Your task to perform on an android device: turn off priority inbox in the gmail app Image 0: 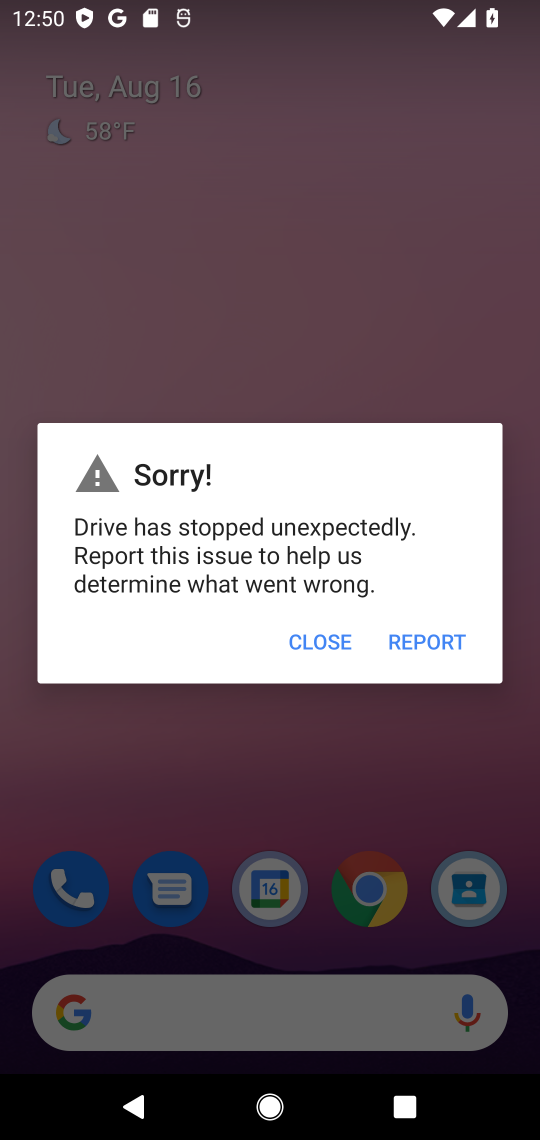
Step 0: drag from (264, 935) to (376, 85)
Your task to perform on an android device: turn off priority inbox in the gmail app Image 1: 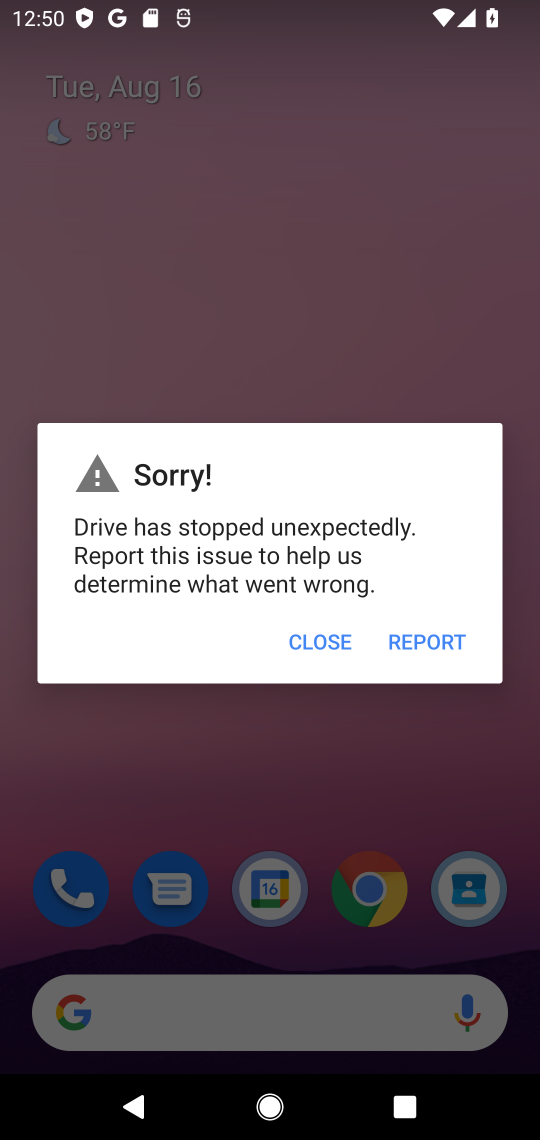
Step 1: click (311, 651)
Your task to perform on an android device: turn off priority inbox in the gmail app Image 2: 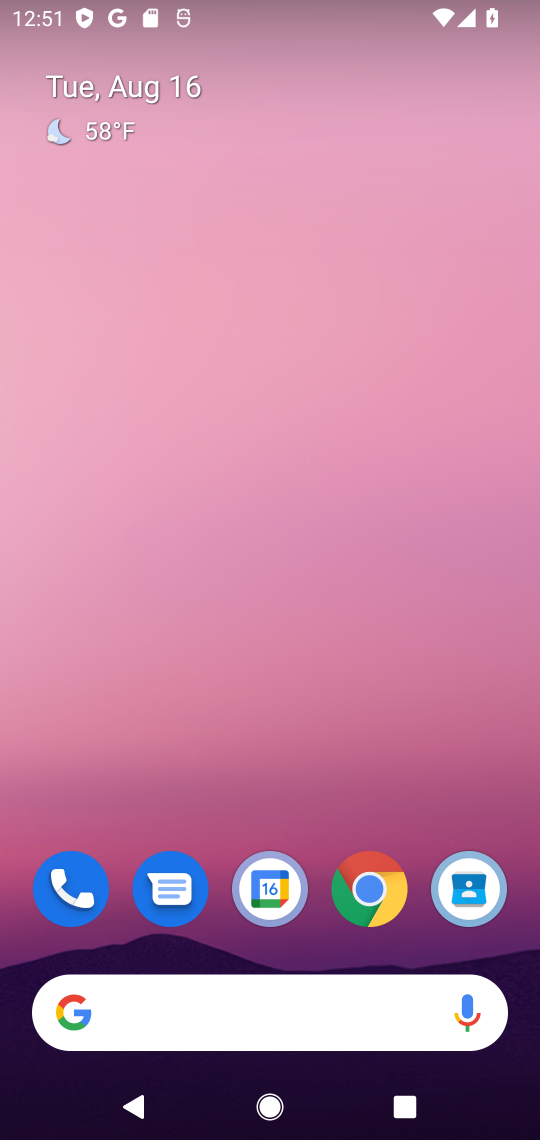
Step 2: drag from (271, 1030) to (376, 36)
Your task to perform on an android device: turn off priority inbox in the gmail app Image 3: 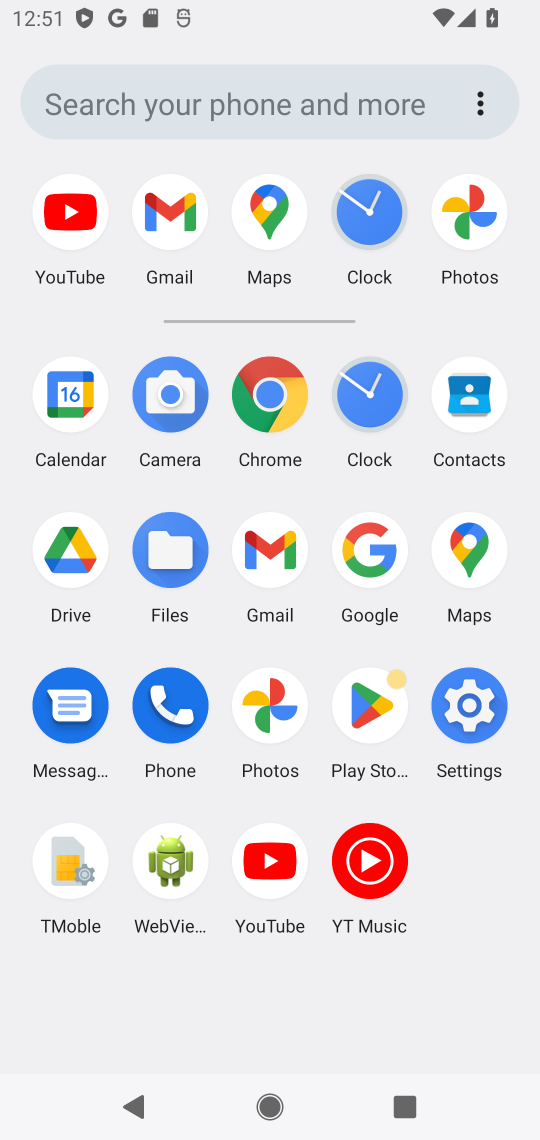
Step 3: click (248, 556)
Your task to perform on an android device: turn off priority inbox in the gmail app Image 4: 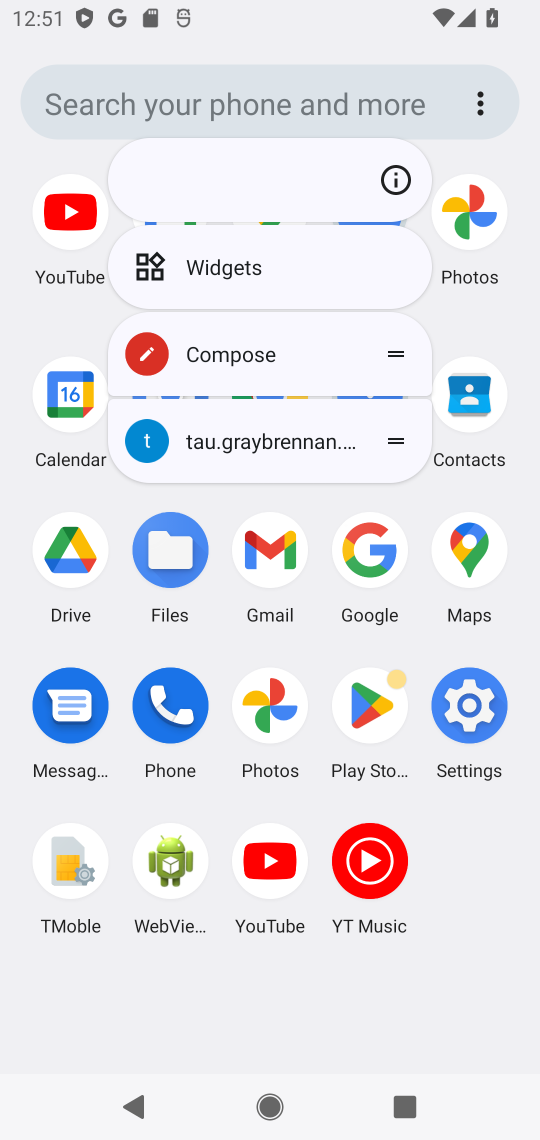
Step 4: click (270, 574)
Your task to perform on an android device: turn off priority inbox in the gmail app Image 5: 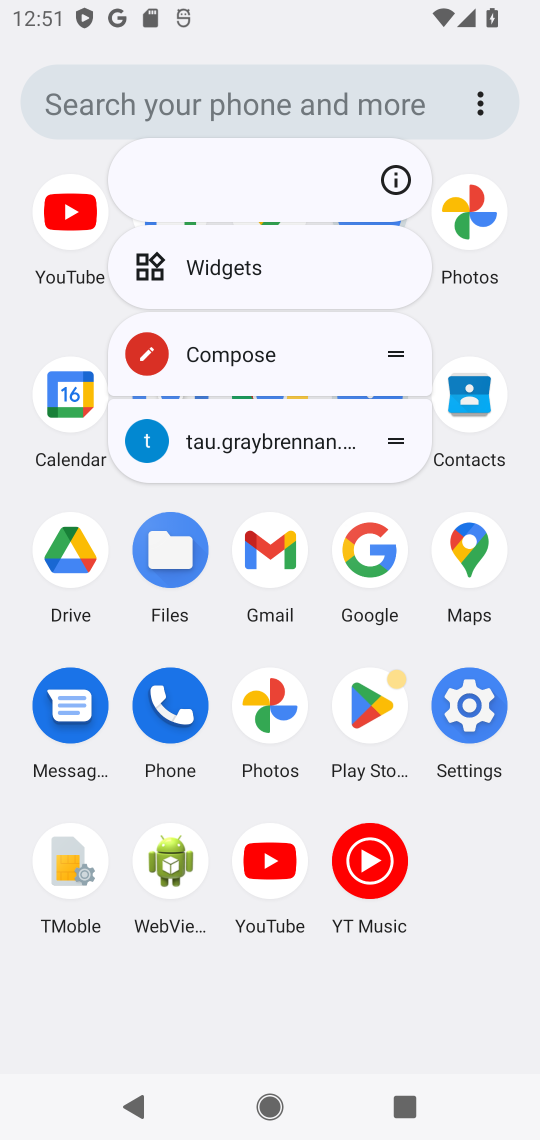
Step 5: click (264, 558)
Your task to perform on an android device: turn off priority inbox in the gmail app Image 6: 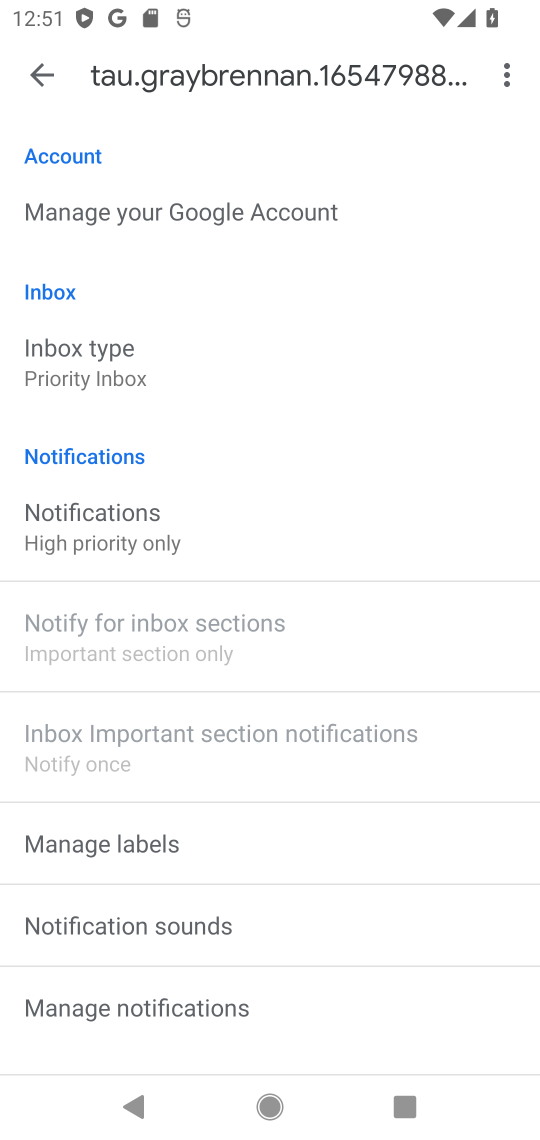
Step 6: click (69, 378)
Your task to perform on an android device: turn off priority inbox in the gmail app Image 7: 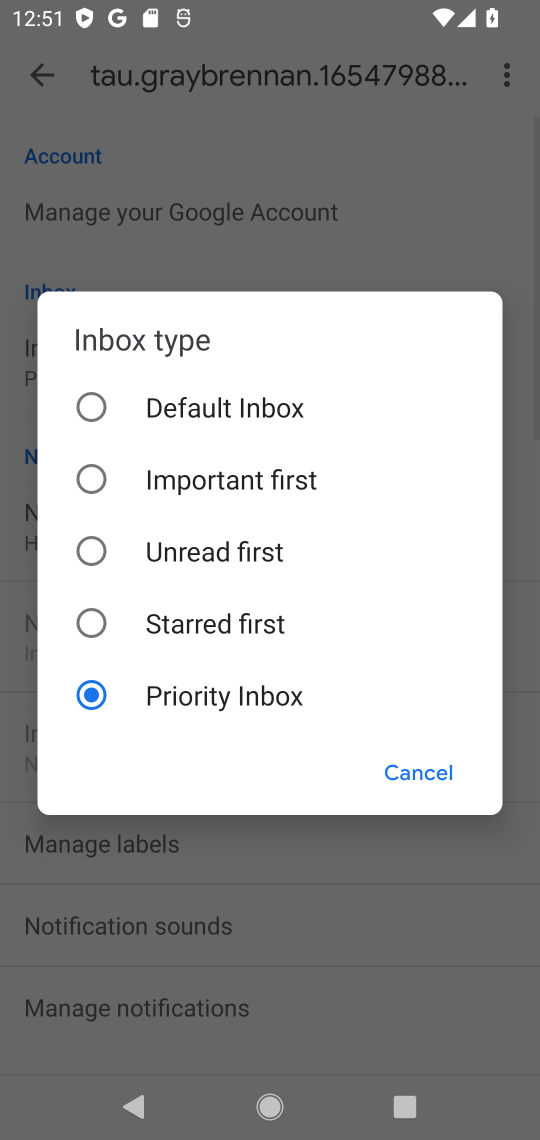
Step 7: click (116, 406)
Your task to perform on an android device: turn off priority inbox in the gmail app Image 8: 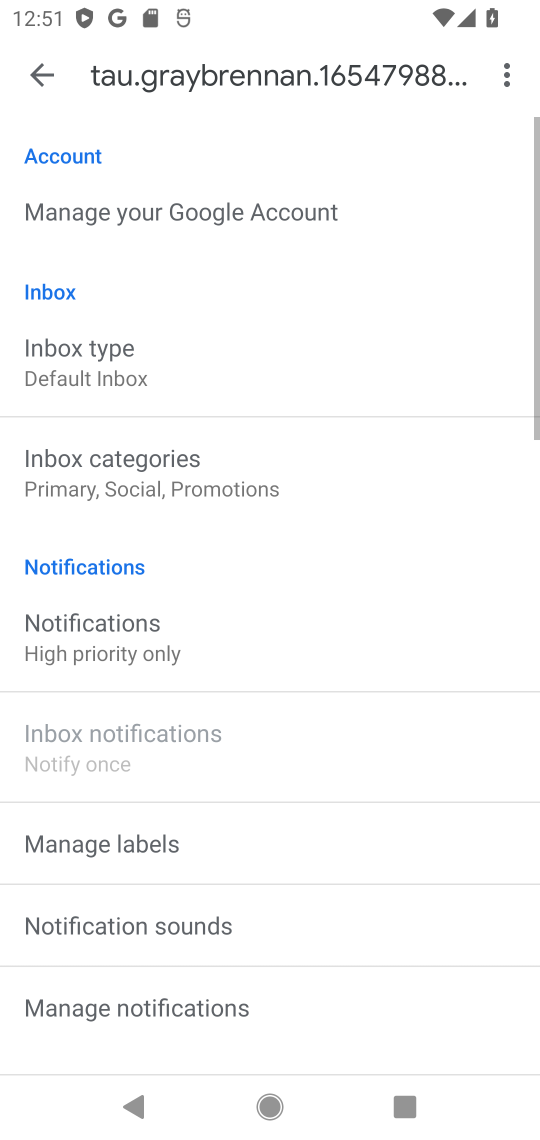
Step 8: task complete